Your task to perform on an android device: Go to Google Image 0: 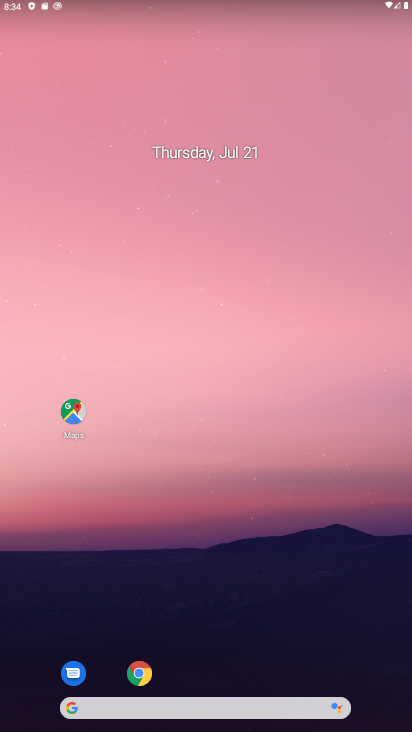
Step 0: drag from (220, 731) to (193, 438)
Your task to perform on an android device: Go to Google Image 1: 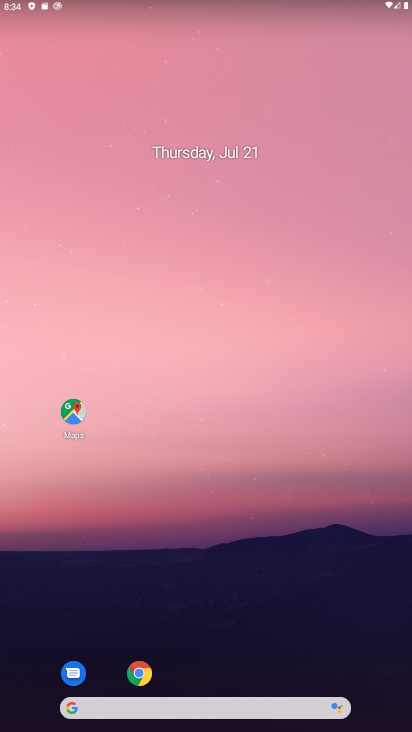
Step 1: drag from (214, 726) to (217, 222)
Your task to perform on an android device: Go to Google Image 2: 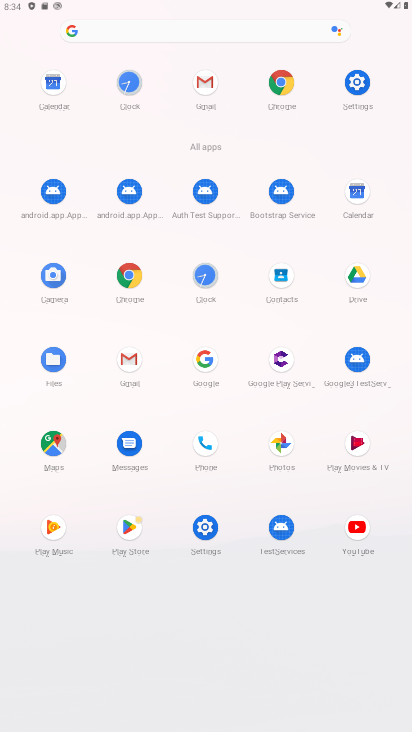
Step 2: click (207, 354)
Your task to perform on an android device: Go to Google Image 3: 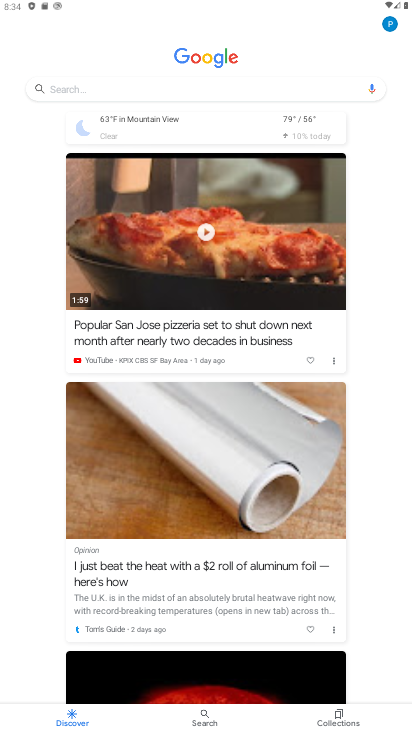
Step 3: task complete